Your task to perform on an android device: Open battery settings Image 0: 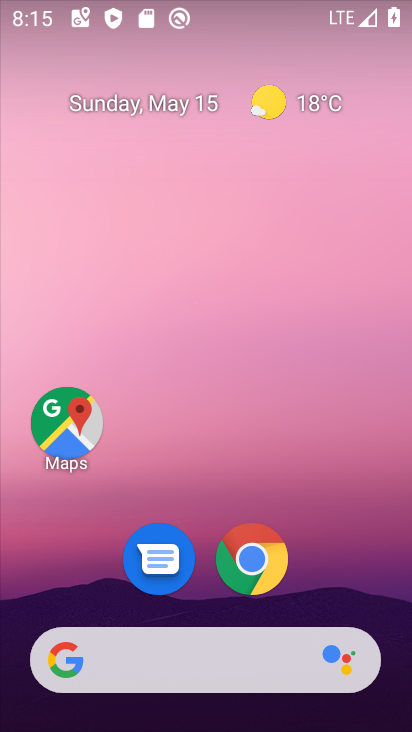
Step 0: drag from (287, 461) to (179, 6)
Your task to perform on an android device: Open battery settings Image 1: 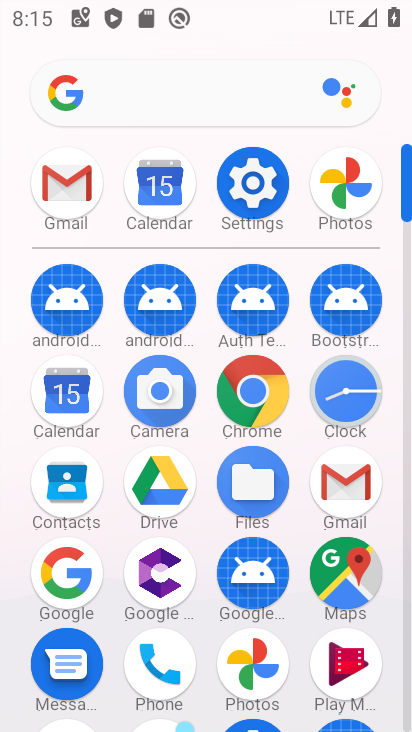
Step 1: click (250, 176)
Your task to perform on an android device: Open battery settings Image 2: 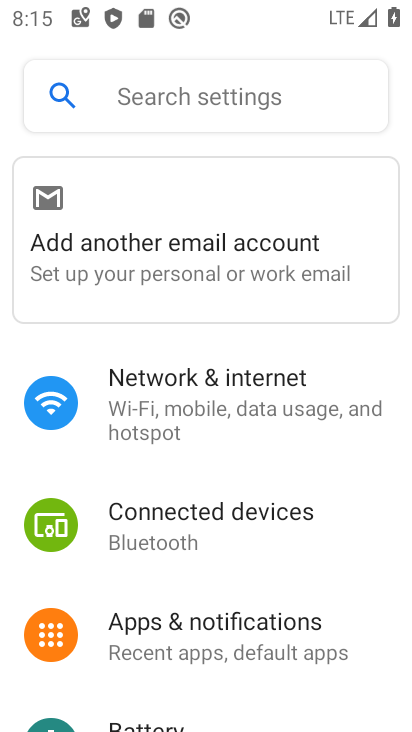
Step 2: drag from (218, 609) to (118, 359)
Your task to perform on an android device: Open battery settings Image 3: 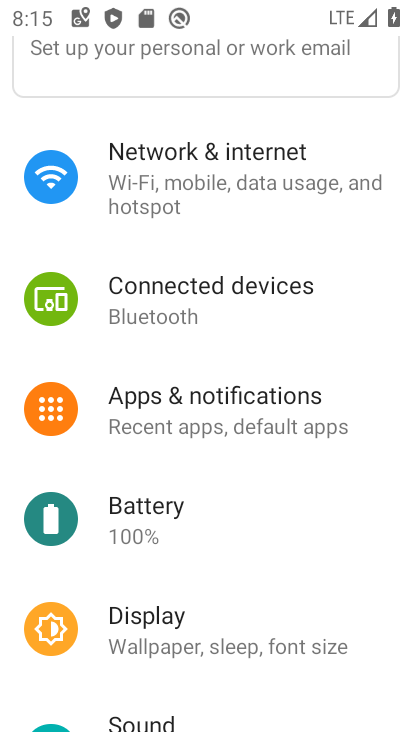
Step 3: click (138, 504)
Your task to perform on an android device: Open battery settings Image 4: 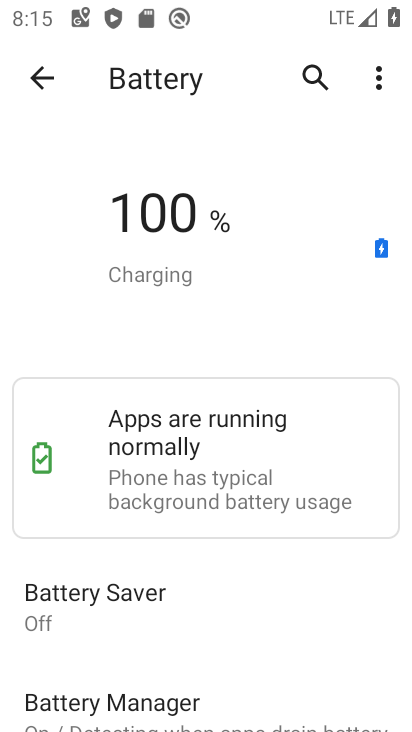
Step 4: task complete